Your task to perform on an android device: Open privacy settings Image 0: 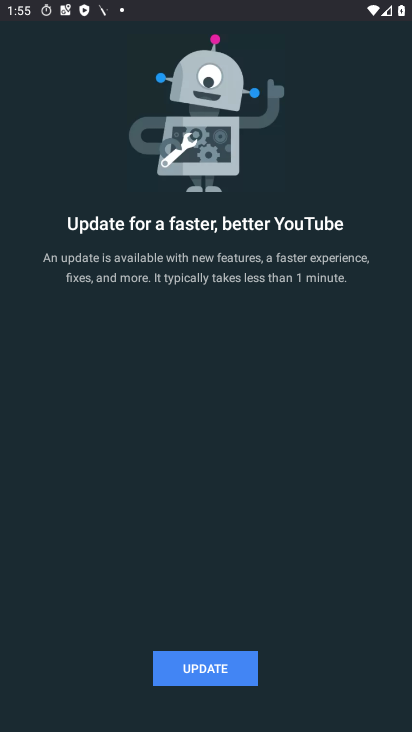
Step 0: press back button
Your task to perform on an android device: Open privacy settings Image 1: 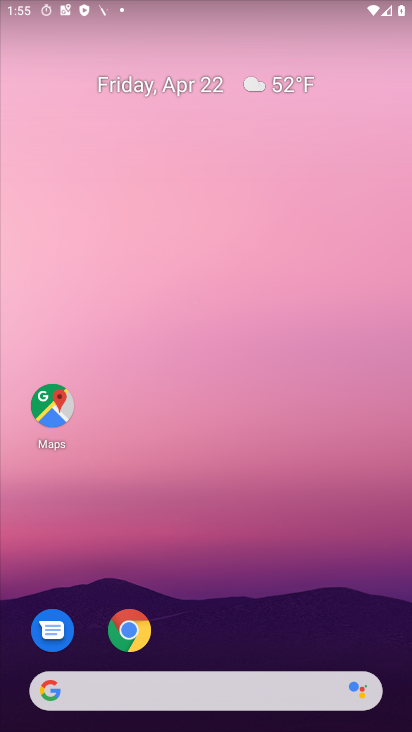
Step 1: click (117, 626)
Your task to perform on an android device: Open privacy settings Image 2: 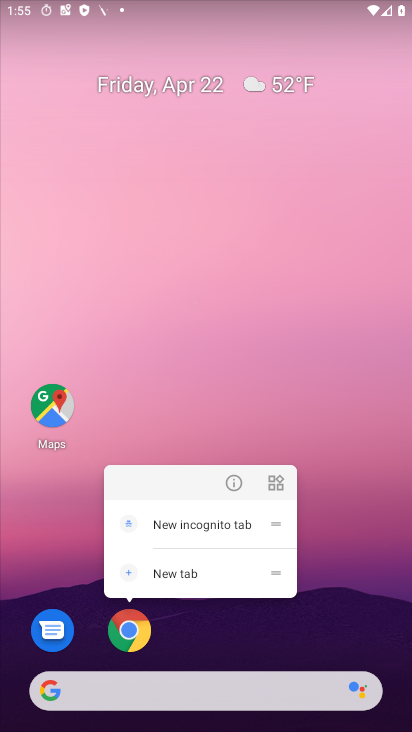
Step 2: click (117, 626)
Your task to perform on an android device: Open privacy settings Image 3: 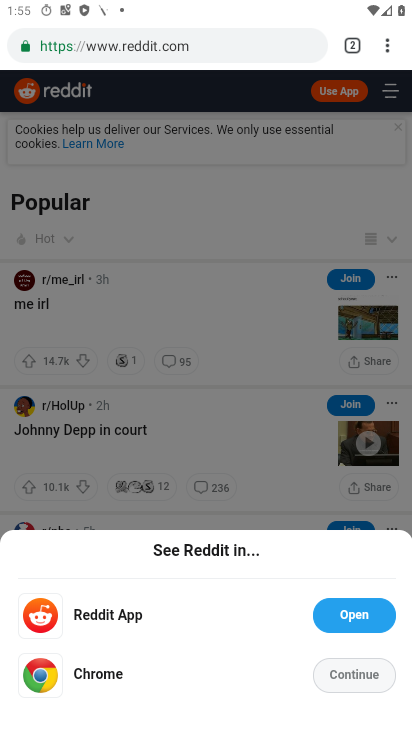
Step 3: press back button
Your task to perform on an android device: Open privacy settings Image 4: 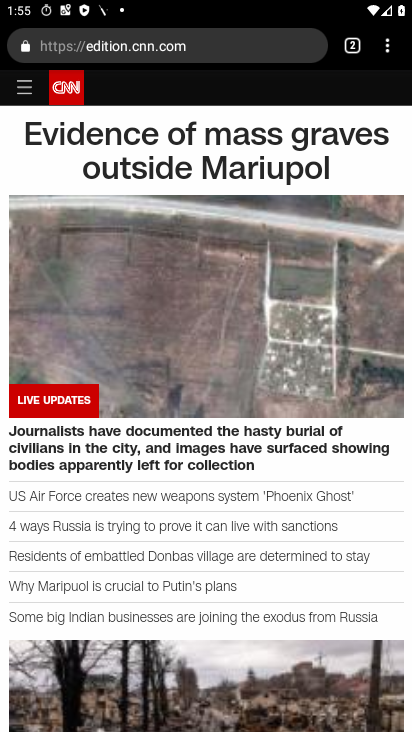
Step 4: click (388, 41)
Your task to perform on an android device: Open privacy settings Image 5: 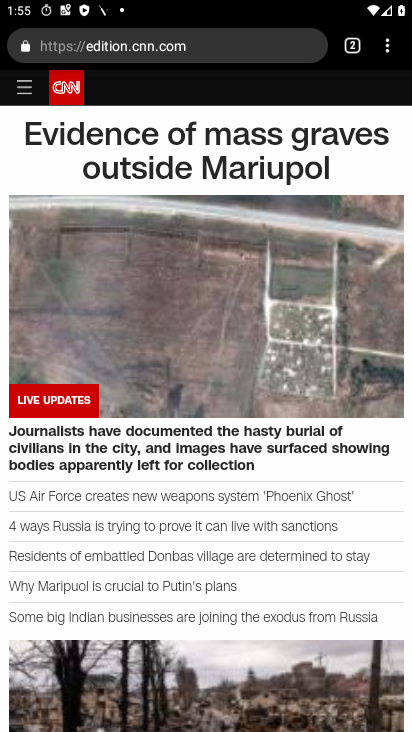
Step 5: click (388, 41)
Your task to perform on an android device: Open privacy settings Image 6: 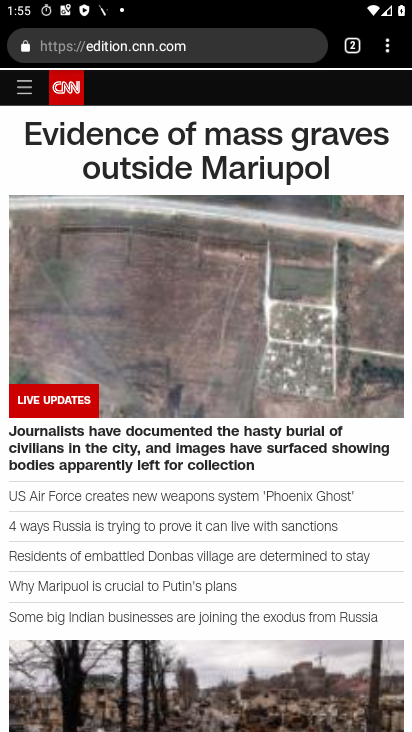
Step 6: click (388, 41)
Your task to perform on an android device: Open privacy settings Image 7: 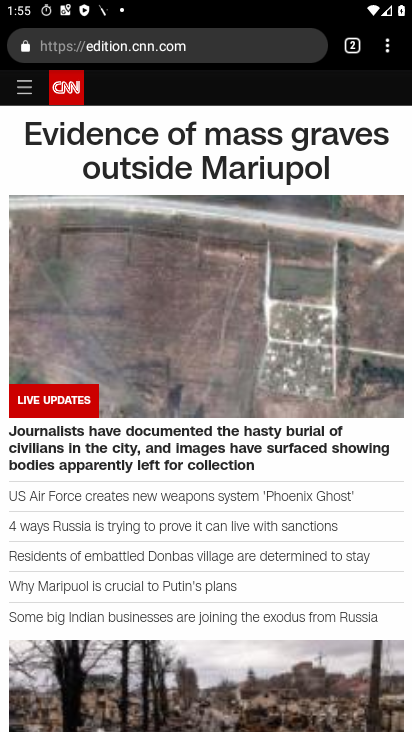
Step 7: click (388, 41)
Your task to perform on an android device: Open privacy settings Image 8: 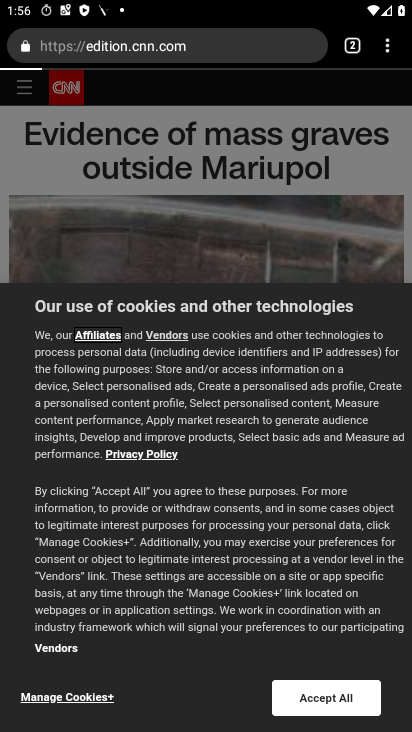
Step 8: click (388, 41)
Your task to perform on an android device: Open privacy settings Image 9: 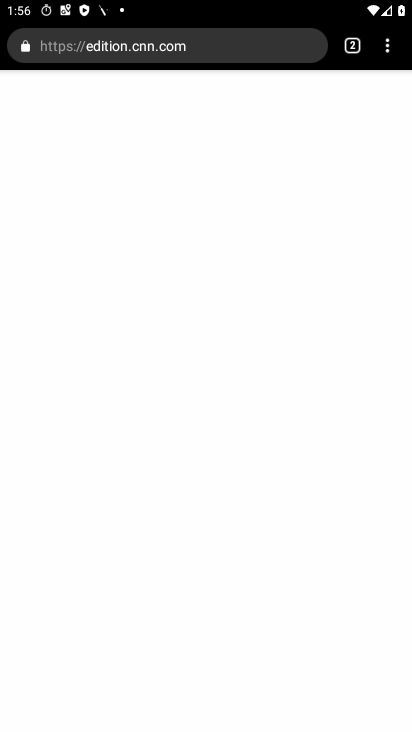
Step 9: click (388, 42)
Your task to perform on an android device: Open privacy settings Image 10: 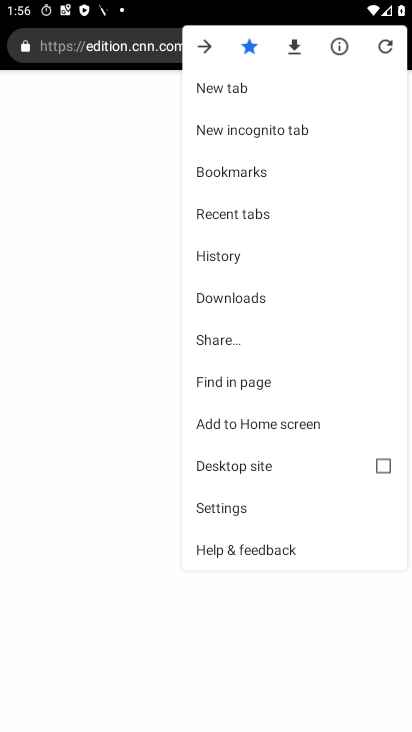
Step 10: click (231, 507)
Your task to perform on an android device: Open privacy settings Image 11: 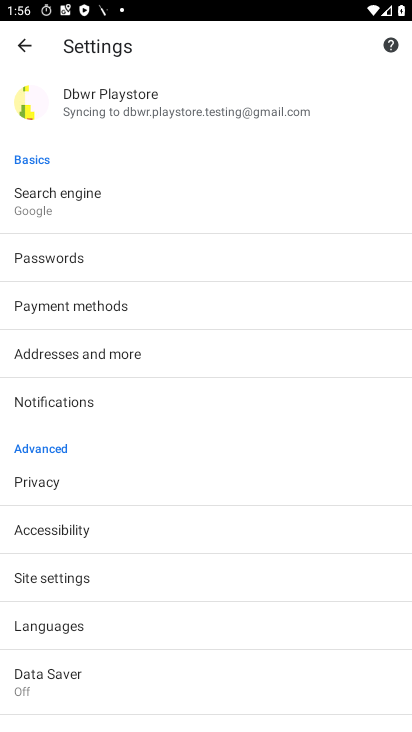
Step 11: click (37, 475)
Your task to perform on an android device: Open privacy settings Image 12: 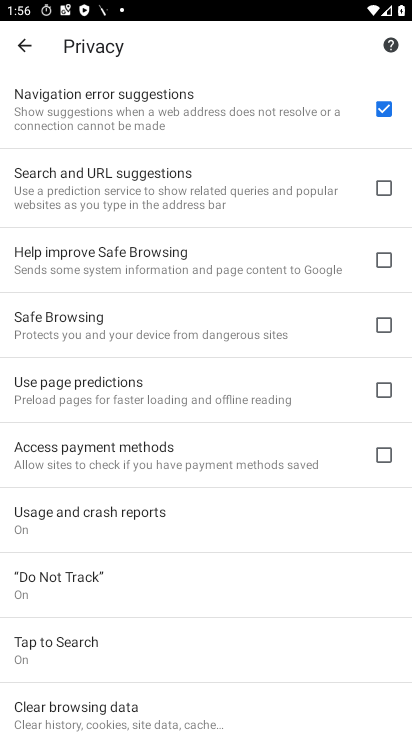
Step 12: task complete